Your task to perform on an android device: Open ESPN.com Image 0: 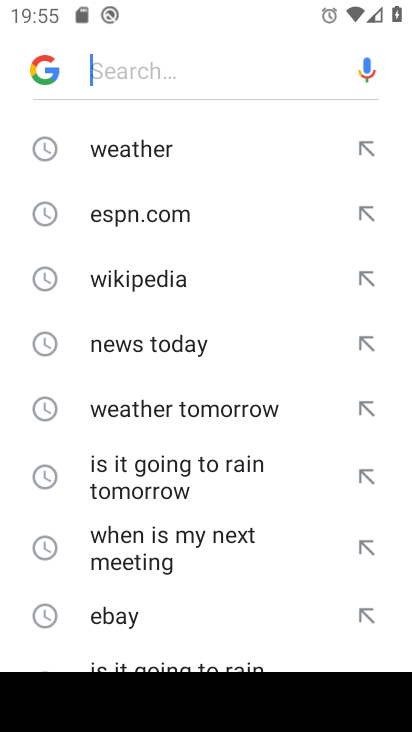
Step 0: type "espn.com"
Your task to perform on an android device: Open ESPN.com Image 1: 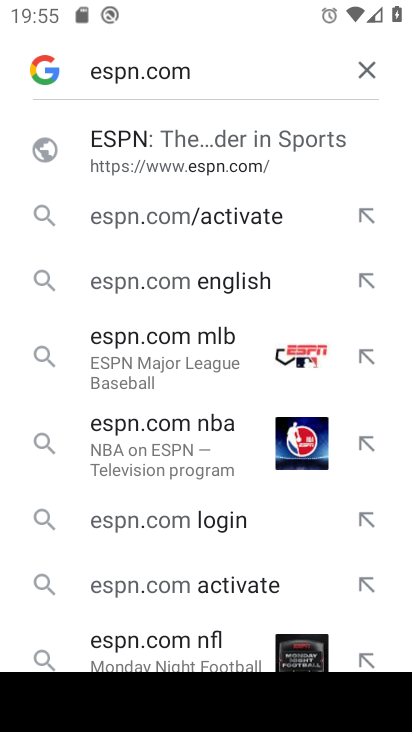
Step 1: click (170, 149)
Your task to perform on an android device: Open ESPN.com Image 2: 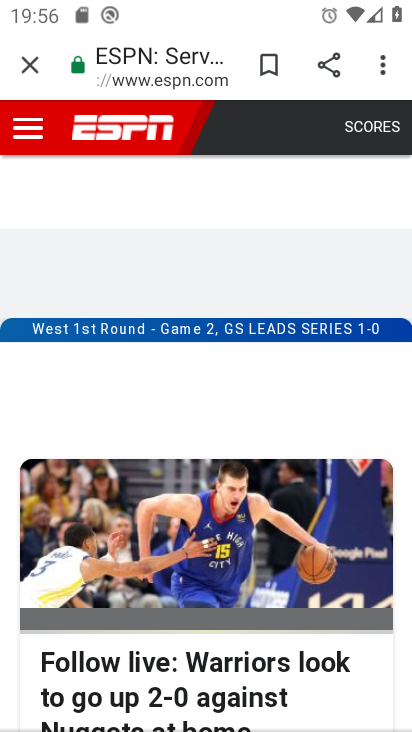
Step 2: task complete